Your task to perform on an android device: set the stopwatch Image 0: 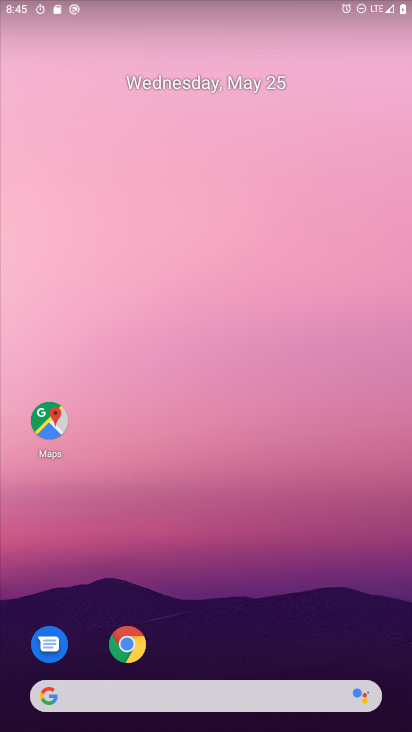
Step 0: drag from (400, 652) to (311, 93)
Your task to perform on an android device: set the stopwatch Image 1: 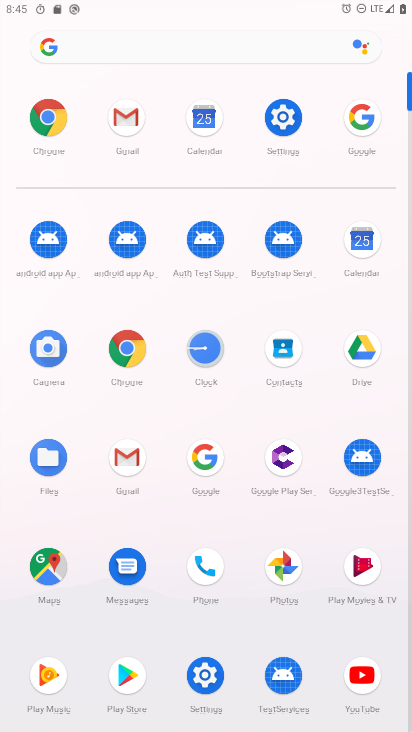
Step 1: click (208, 356)
Your task to perform on an android device: set the stopwatch Image 2: 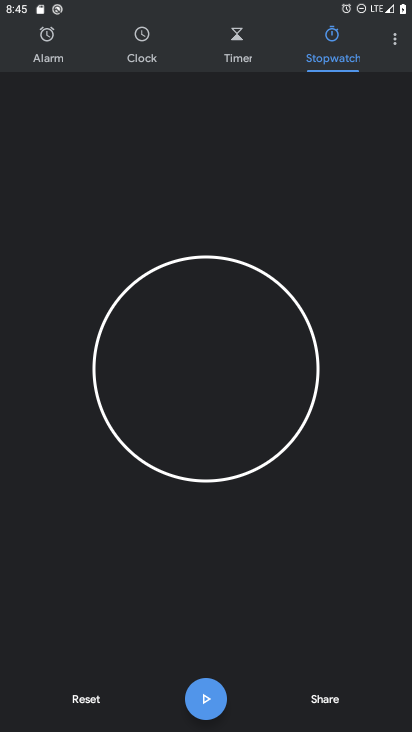
Step 2: task complete